Your task to perform on an android device: Open the Play Movies app and select the watchlist tab. Image 0: 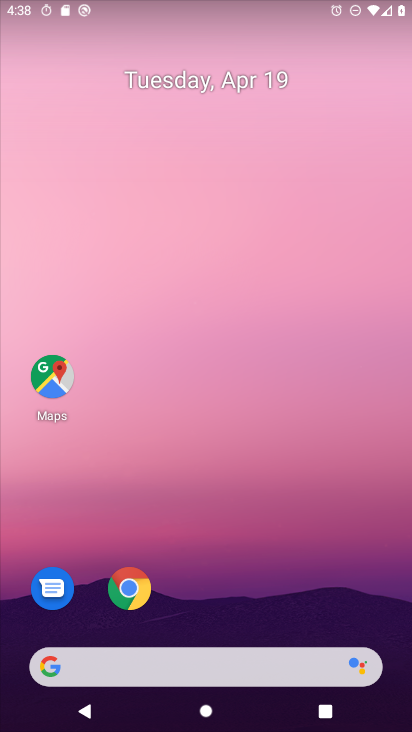
Step 0: drag from (200, 544) to (216, 9)
Your task to perform on an android device: Open the Play Movies app and select the watchlist tab. Image 1: 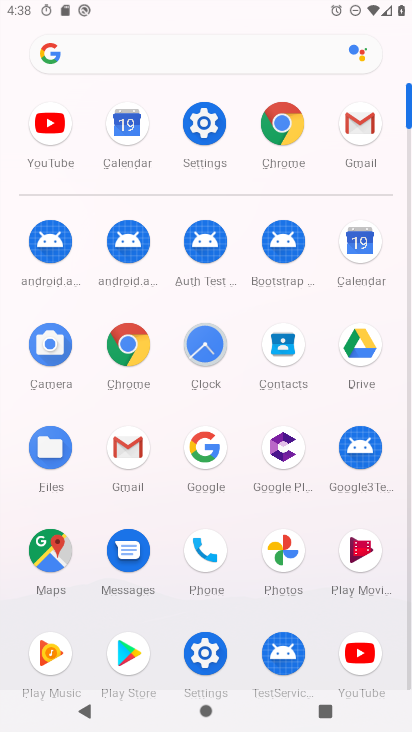
Step 1: click (360, 553)
Your task to perform on an android device: Open the Play Movies app and select the watchlist tab. Image 2: 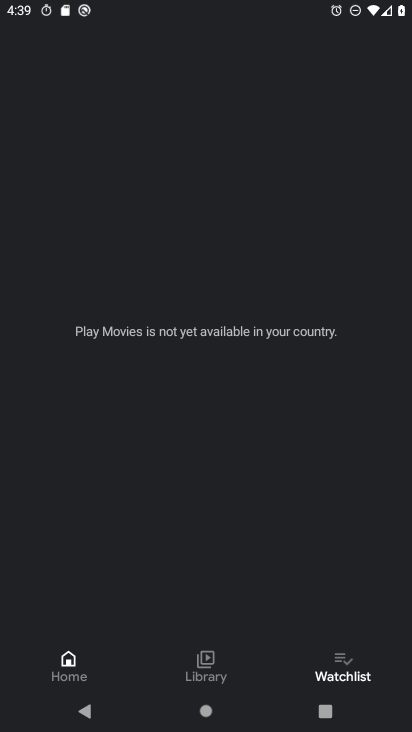
Step 2: task complete